Your task to perform on an android device: turn vacation reply on in the gmail app Image 0: 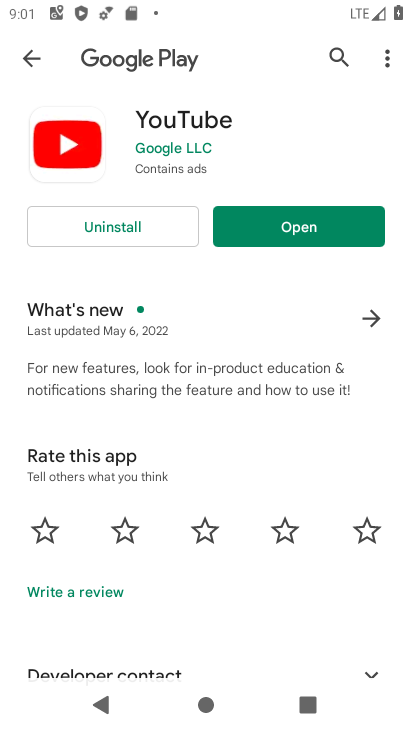
Step 0: press home button
Your task to perform on an android device: turn vacation reply on in the gmail app Image 1: 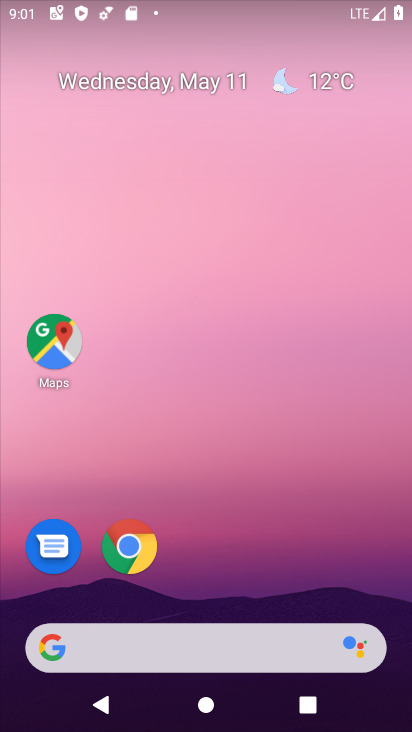
Step 1: drag from (392, 614) to (299, 119)
Your task to perform on an android device: turn vacation reply on in the gmail app Image 2: 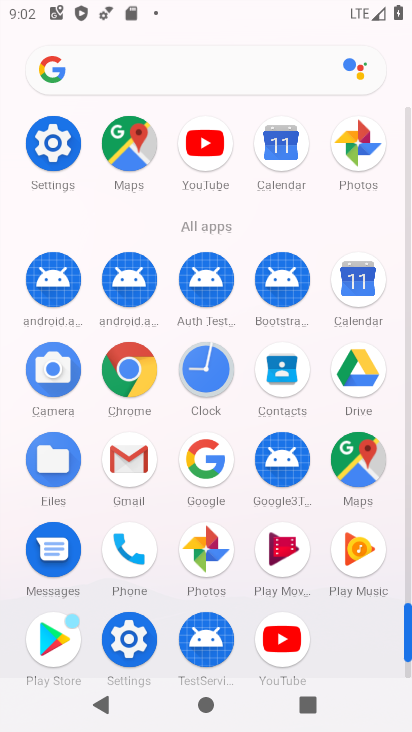
Step 2: click (126, 461)
Your task to perform on an android device: turn vacation reply on in the gmail app Image 3: 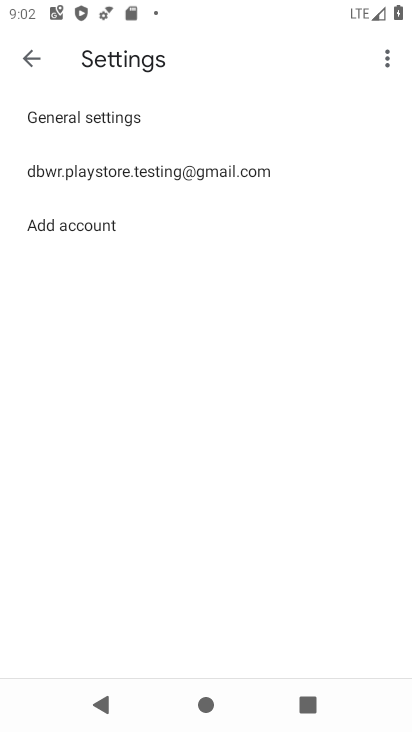
Step 3: click (93, 159)
Your task to perform on an android device: turn vacation reply on in the gmail app Image 4: 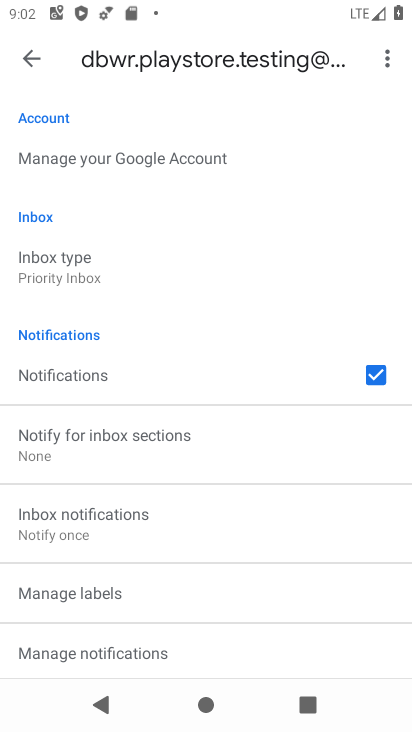
Step 4: drag from (268, 553) to (259, 206)
Your task to perform on an android device: turn vacation reply on in the gmail app Image 5: 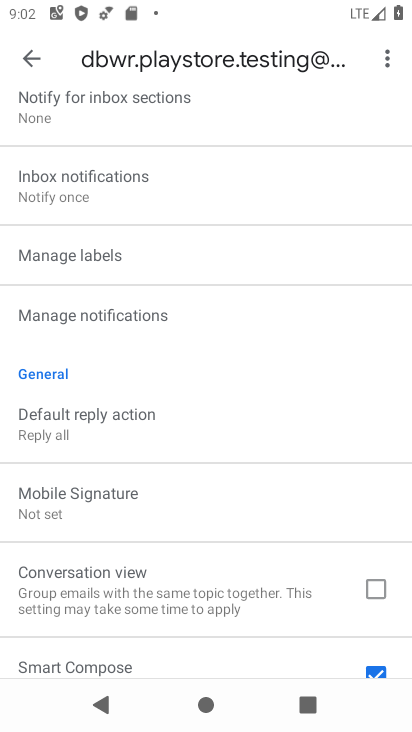
Step 5: drag from (278, 533) to (303, 101)
Your task to perform on an android device: turn vacation reply on in the gmail app Image 6: 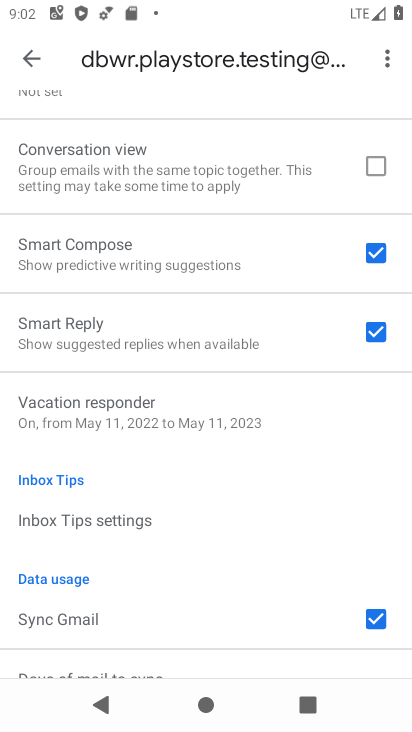
Step 6: click (93, 403)
Your task to perform on an android device: turn vacation reply on in the gmail app Image 7: 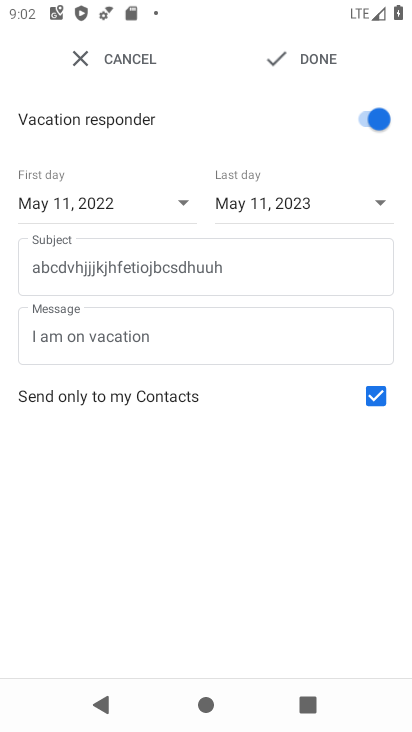
Step 7: task complete